Your task to perform on an android device: Do I have any events tomorrow? Image 0: 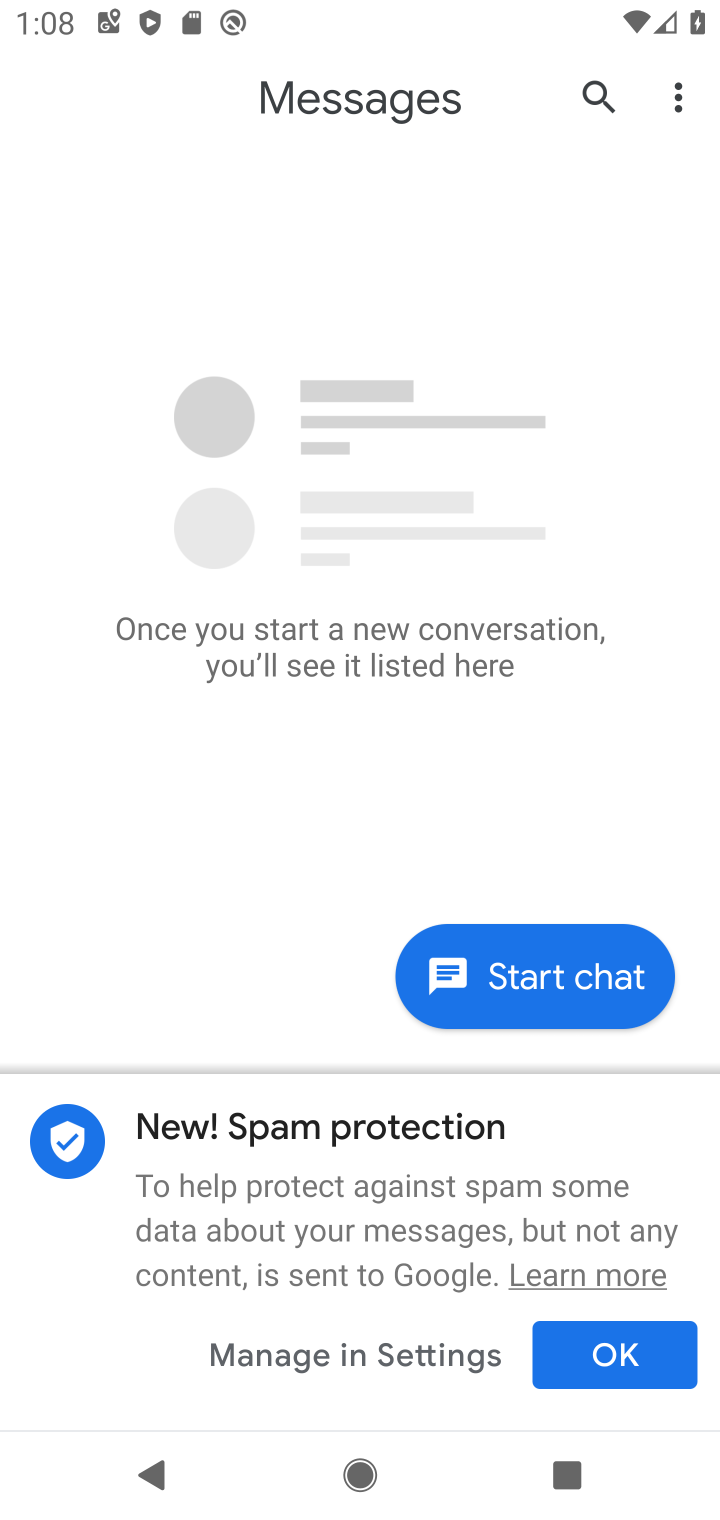
Step 0: press back button
Your task to perform on an android device: Do I have any events tomorrow? Image 1: 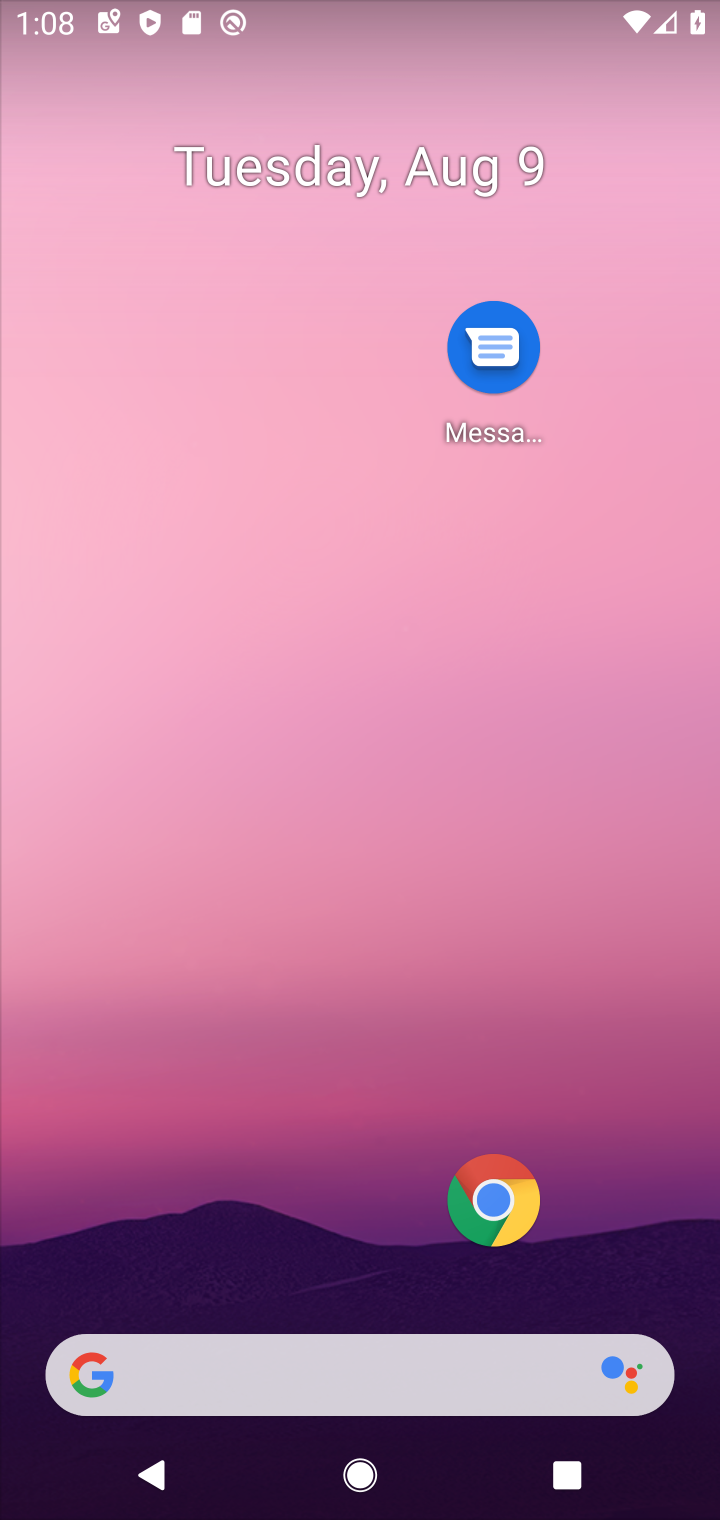
Step 1: drag from (311, 1201) to (363, 175)
Your task to perform on an android device: Do I have any events tomorrow? Image 2: 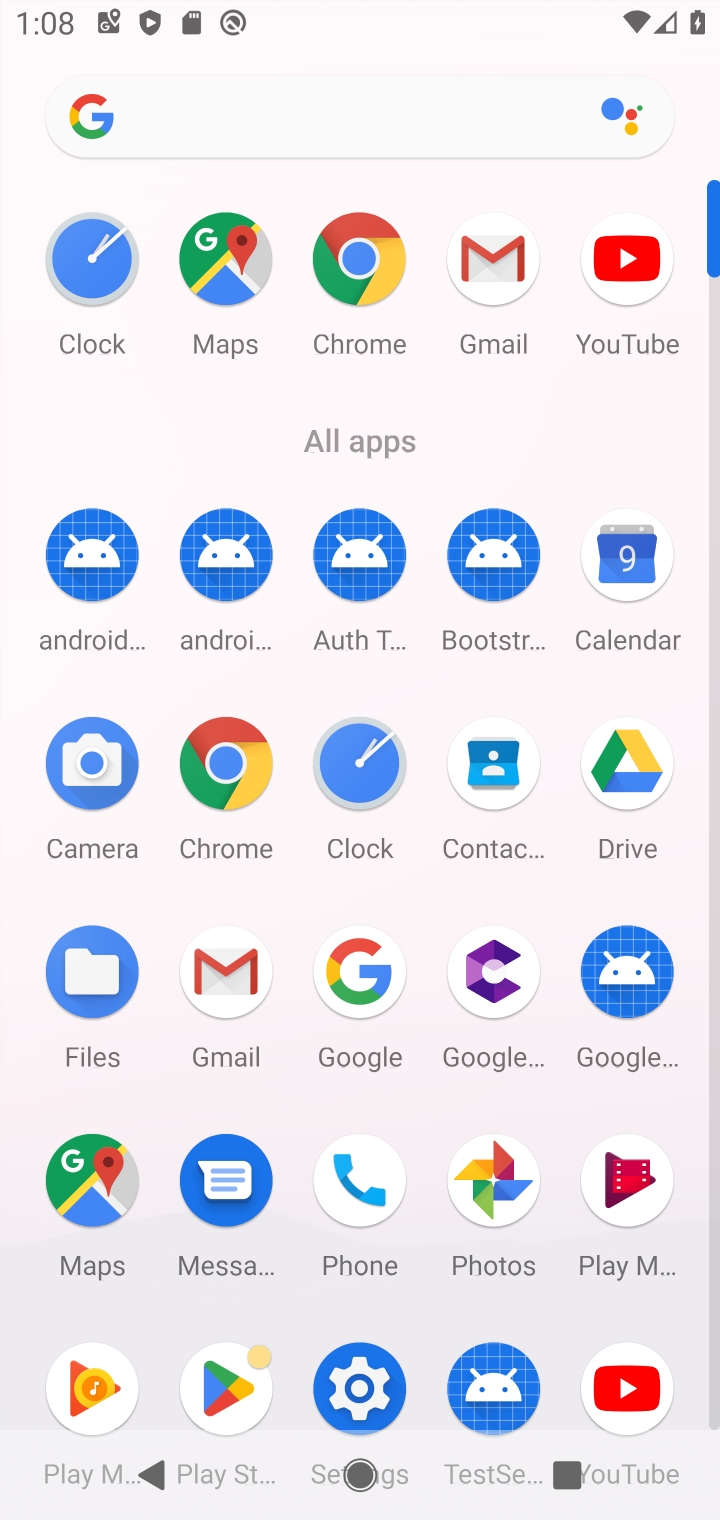
Step 2: click (324, 99)
Your task to perform on an android device: Do I have any events tomorrow? Image 3: 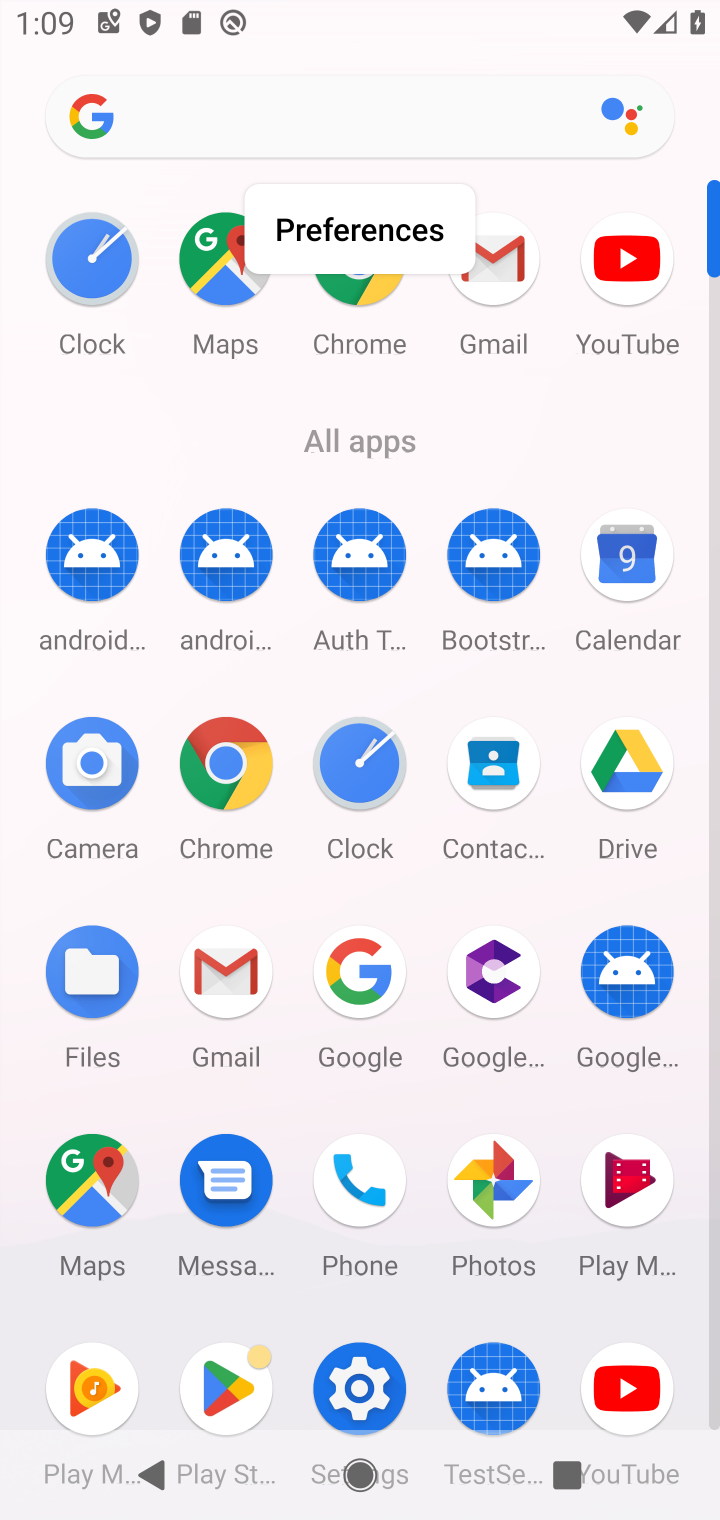
Step 3: click (263, 123)
Your task to perform on an android device: Do I have any events tomorrow? Image 4: 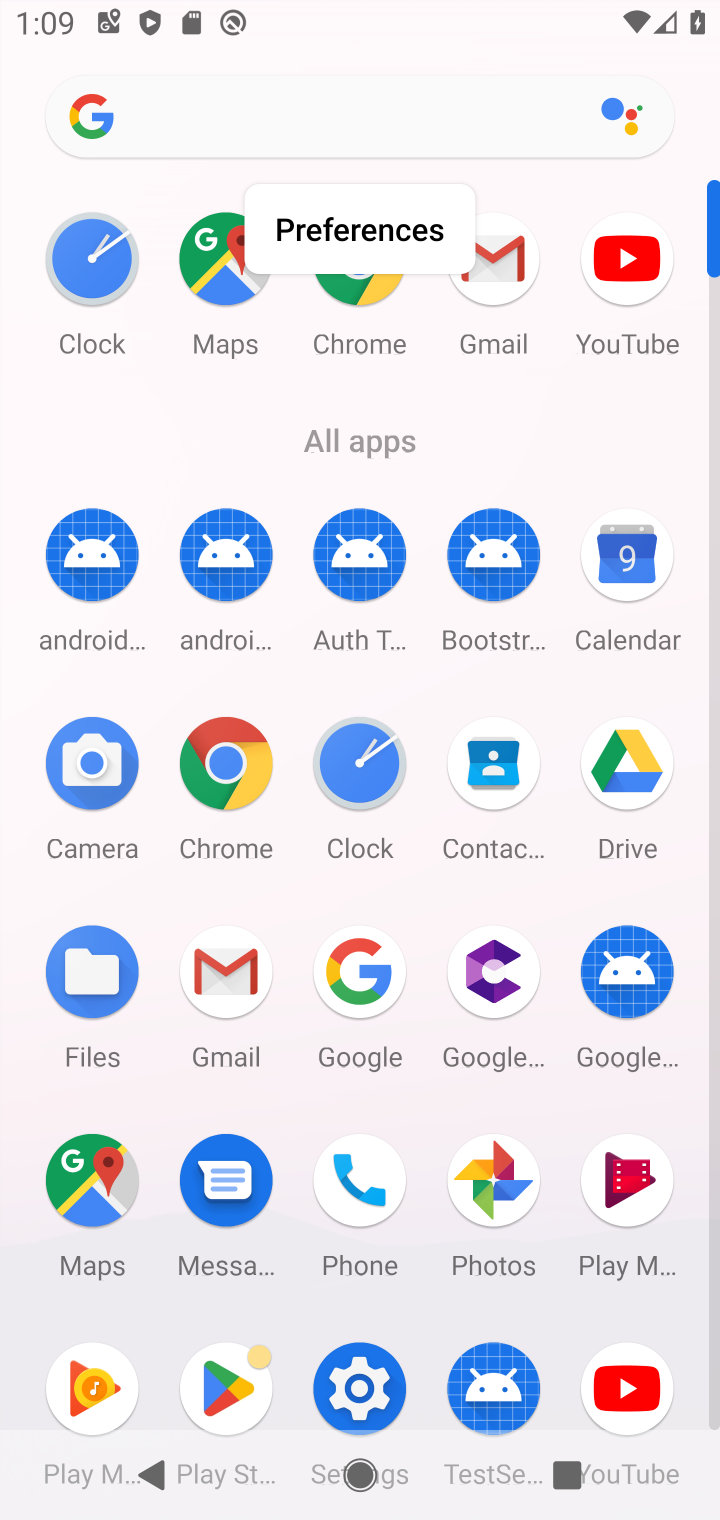
Step 4: click (306, 123)
Your task to perform on an android device: Do I have any events tomorrow? Image 5: 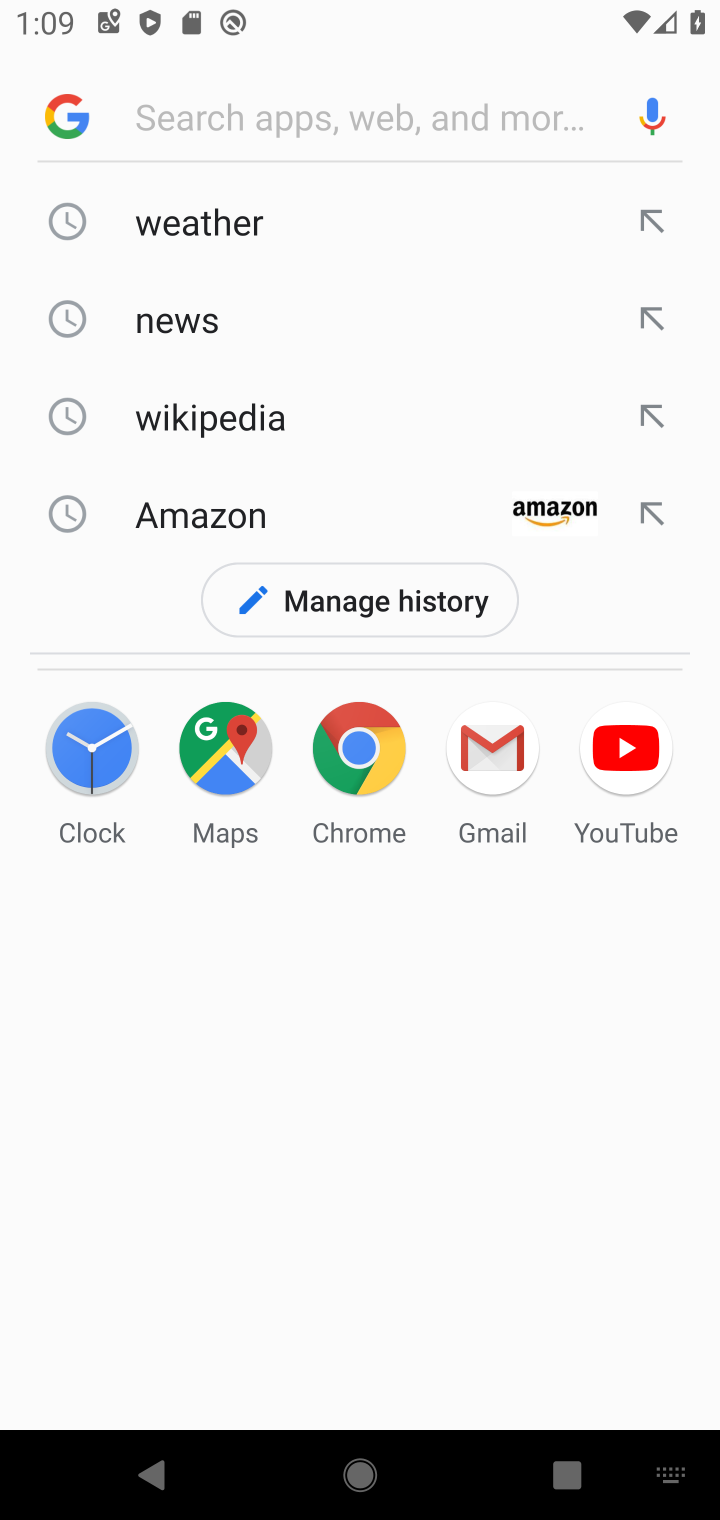
Step 5: press back button
Your task to perform on an android device: Do I have any events tomorrow? Image 6: 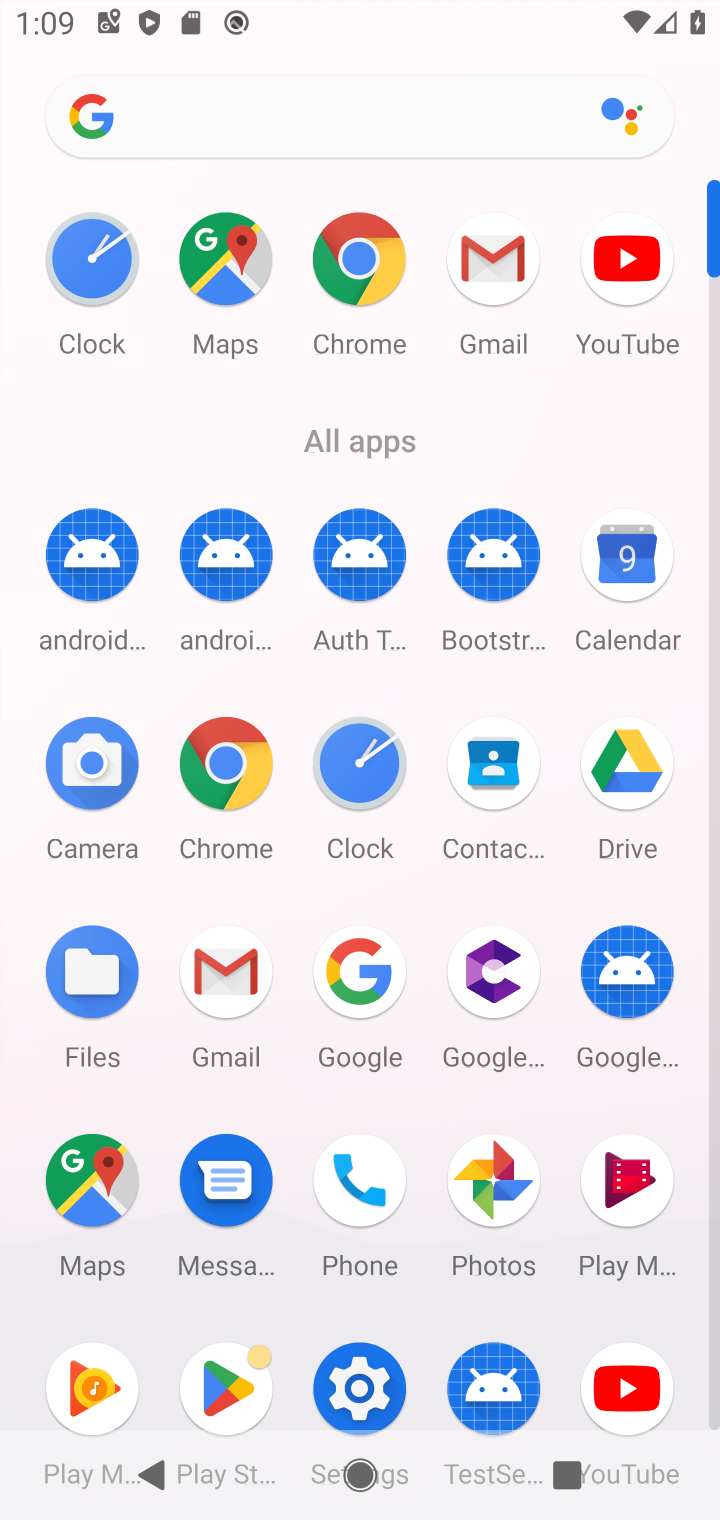
Step 6: click (631, 581)
Your task to perform on an android device: Do I have any events tomorrow? Image 7: 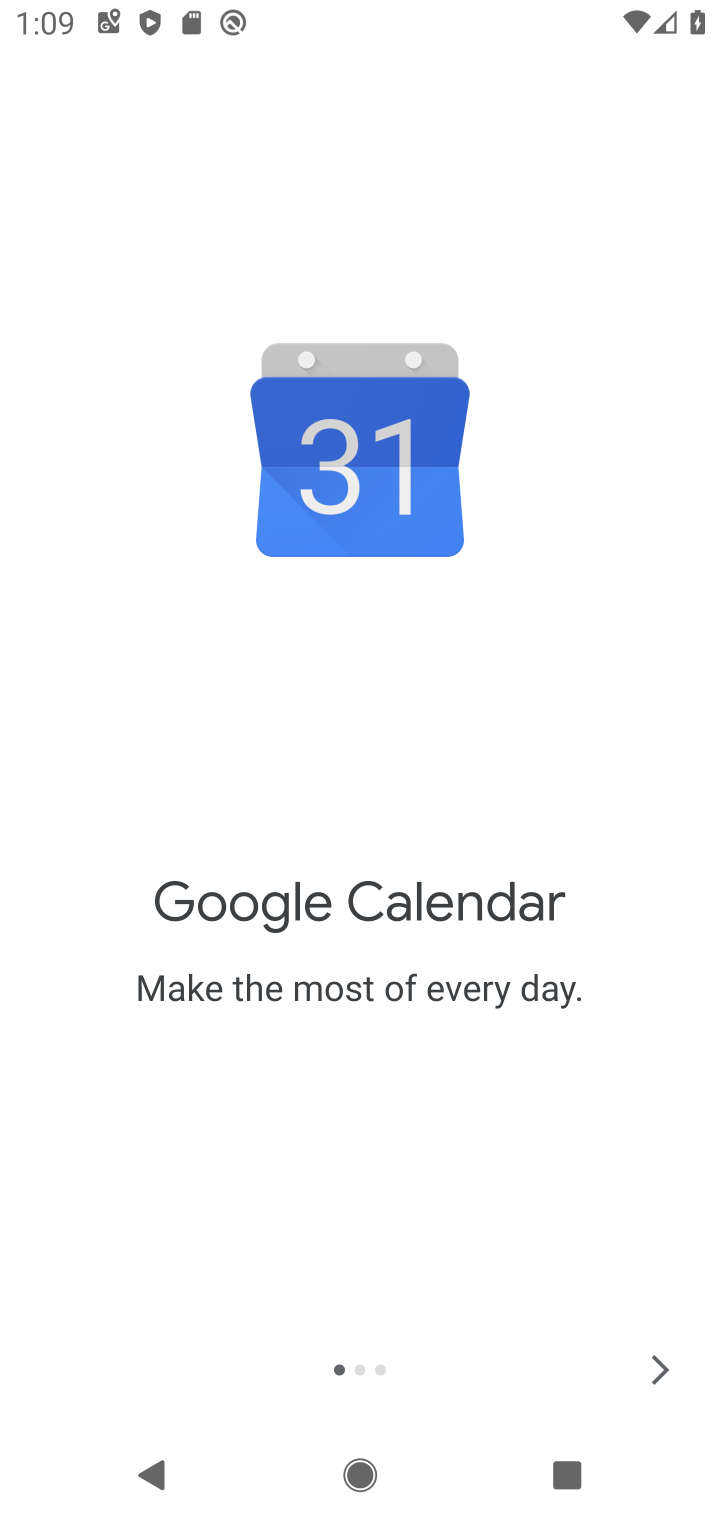
Step 7: click (669, 1372)
Your task to perform on an android device: Do I have any events tomorrow? Image 8: 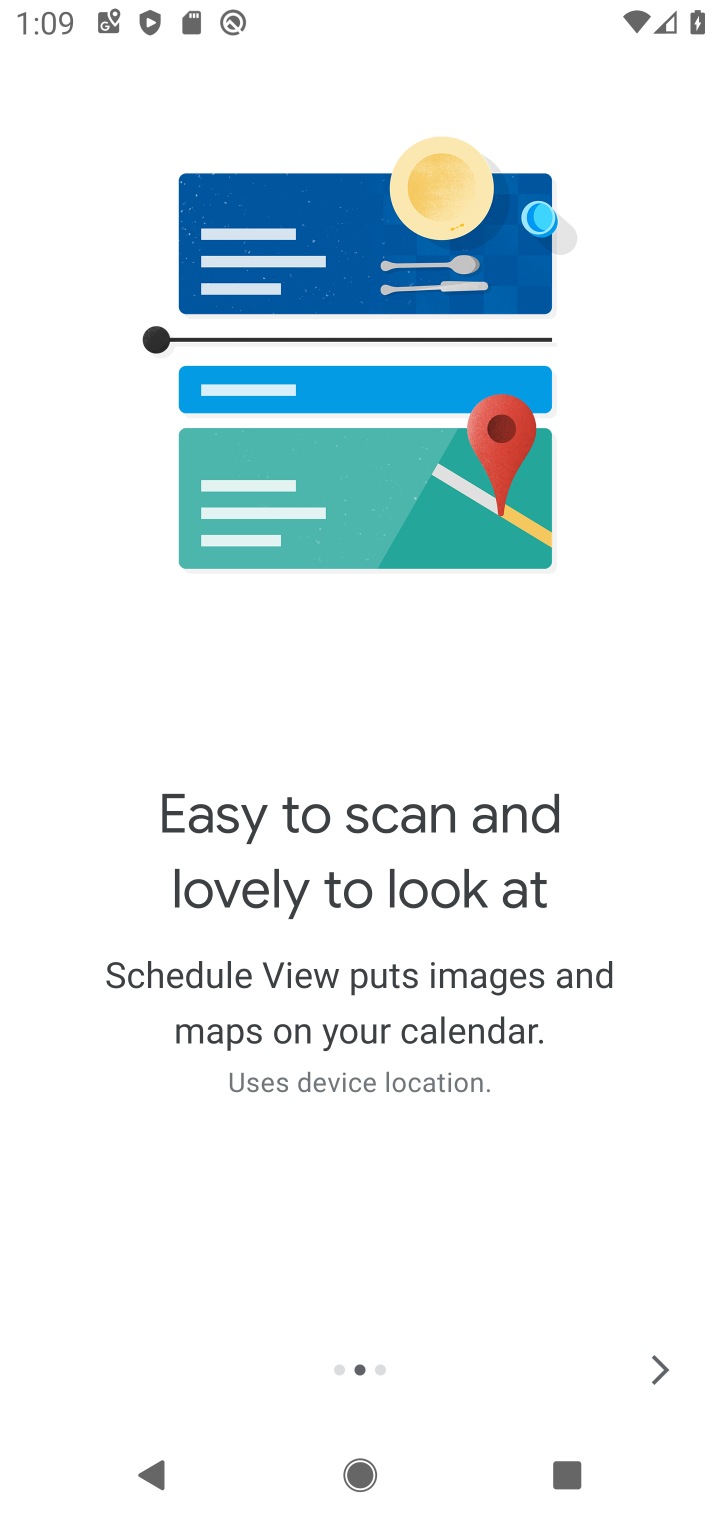
Step 8: click (669, 1365)
Your task to perform on an android device: Do I have any events tomorrow? Image 9: 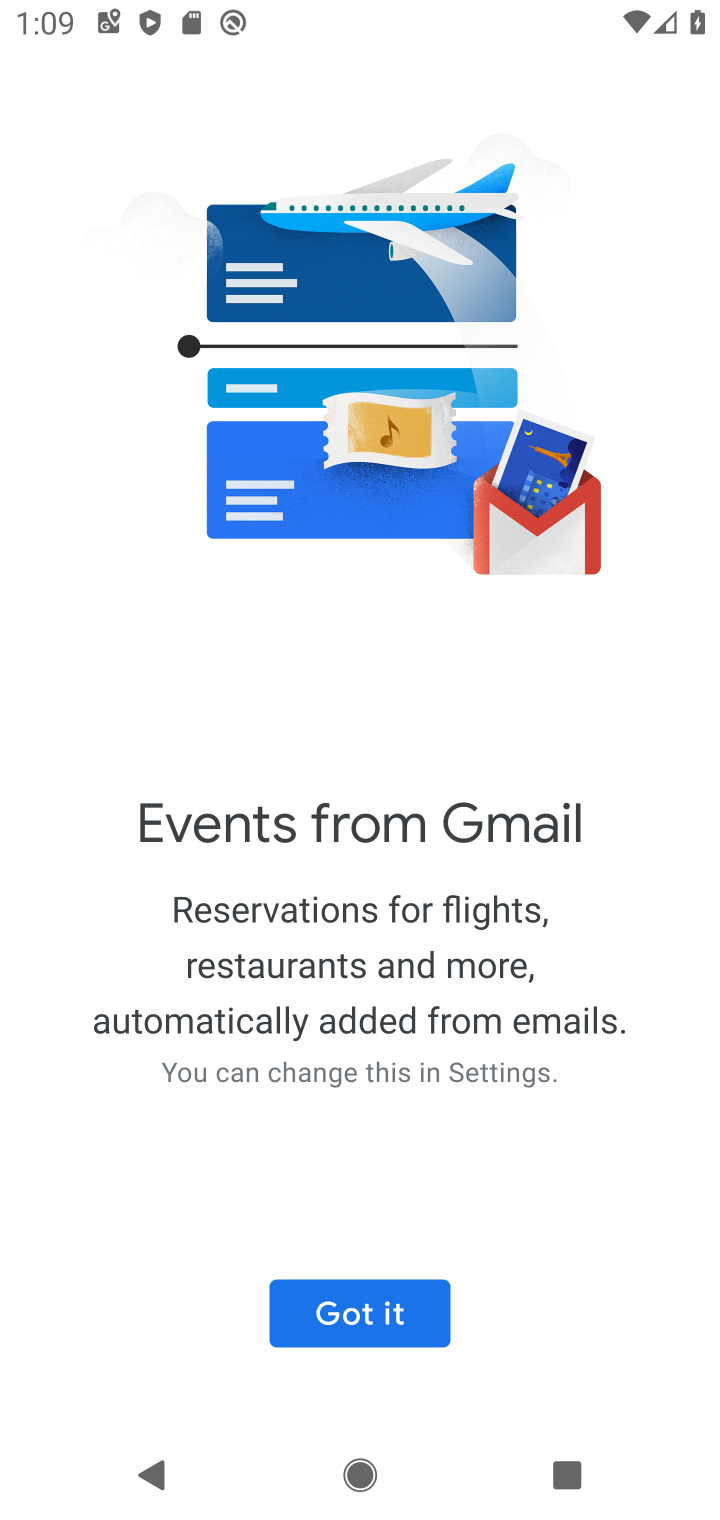
Step 9: click (297, 1335)
Your task to perform on an android device: Do I have any events tomorrow? Image 10: 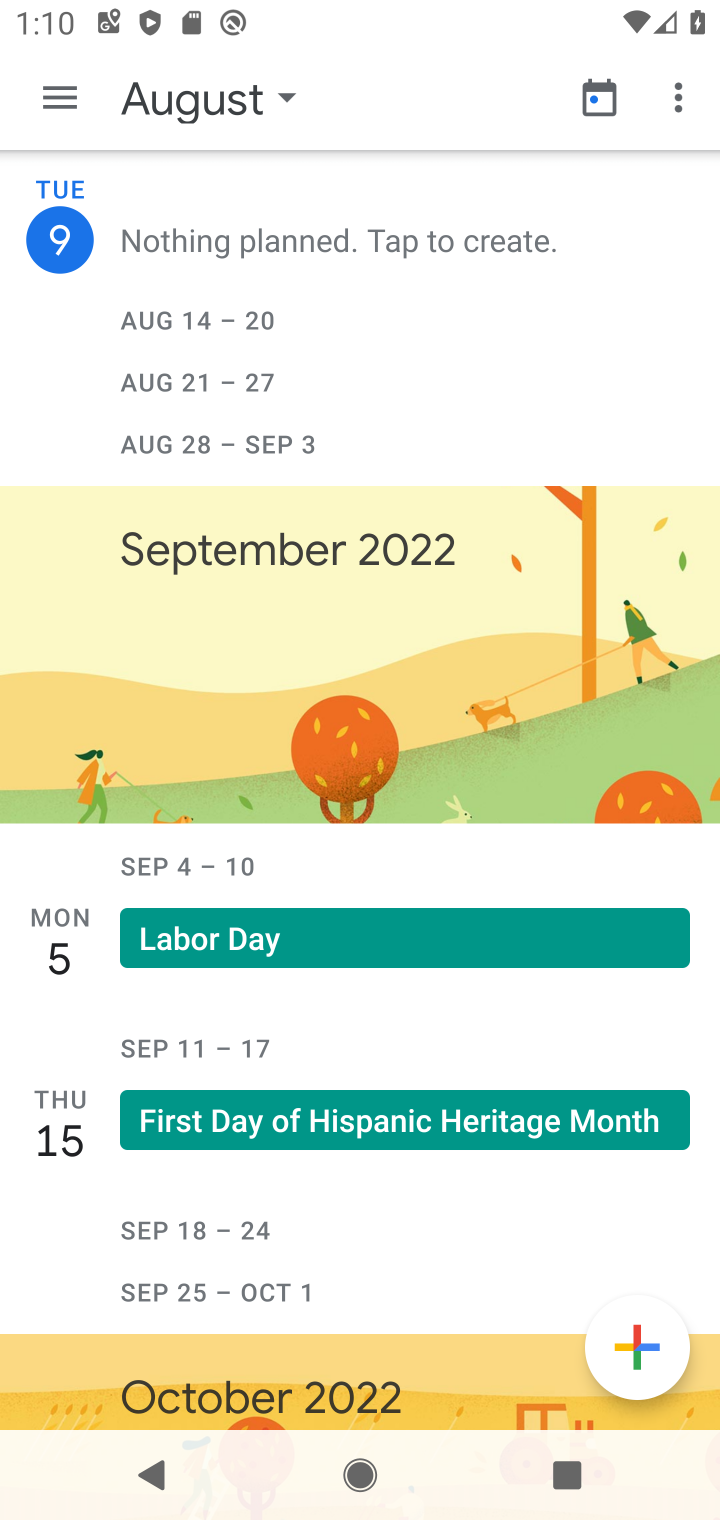
Step 10: task complete